Your task to perform on an android device: Search for Italian restaurants on Maps Image 0: 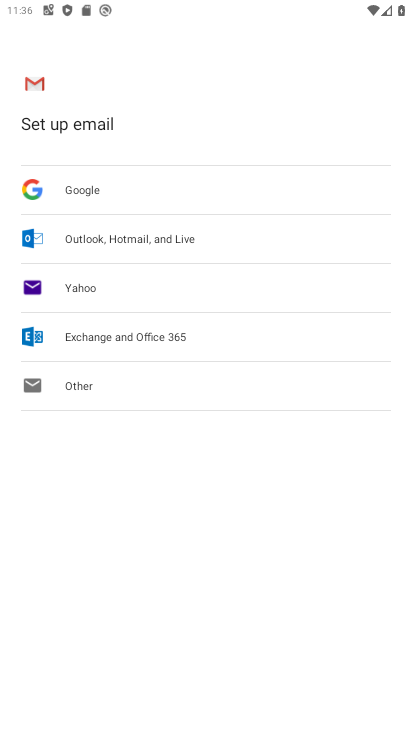
Step 0: press home button
Your task to perform on an android device: Search for Italian restaurants on Maps Image 1: 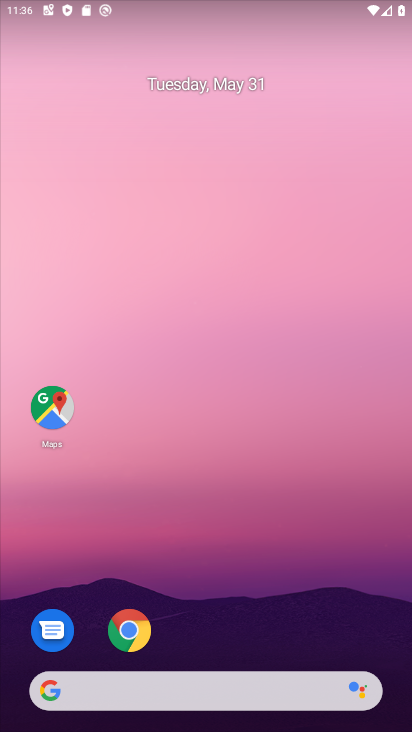
Step 1: drag from (307, 588) to (363, 154)
Your task to perform on an android device: Search for Italian restaurants on Maps Image 2: 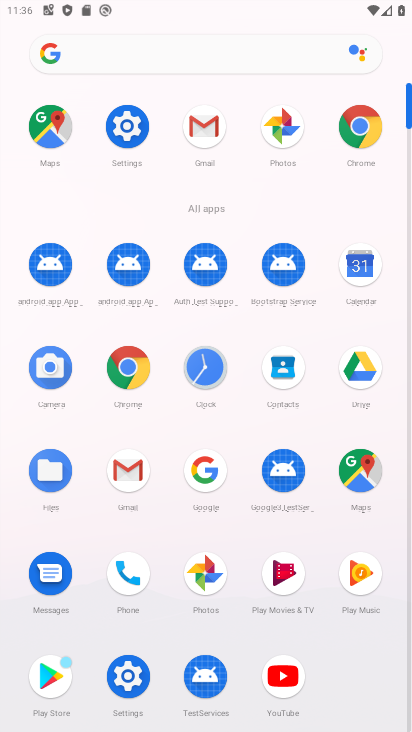
Step 2: click (361, 486)
Your task to perform on an android device: Search for Italian restaurants on Maps Image 3: 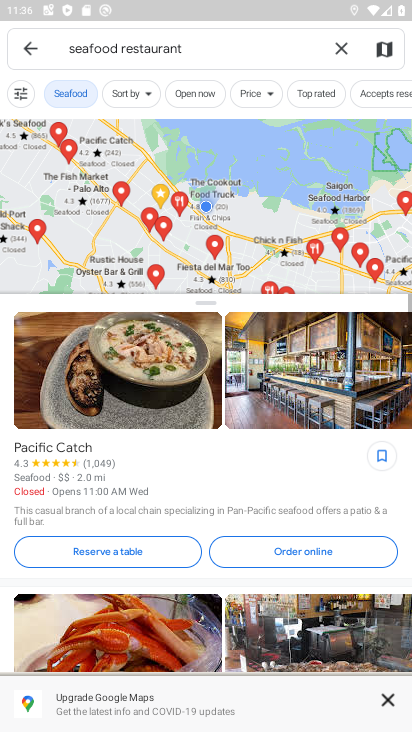
Step 3: click (341, 44)
Your task to perform on an android device: Search for Italian restaurants on Maps Image 4: 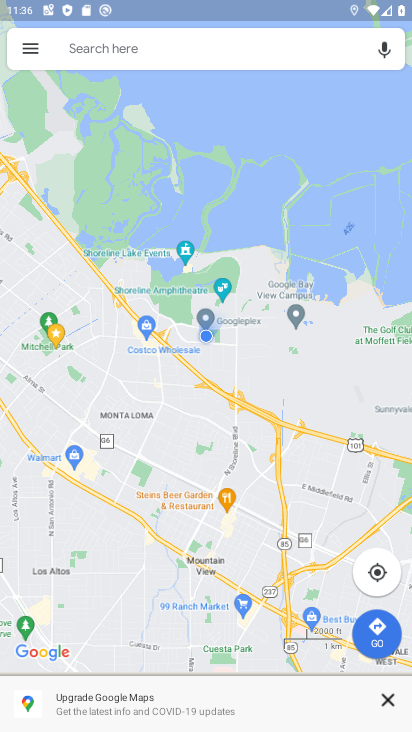
Step 4: click (216, 47)
Your task to perform on an android device: Search for Italian restaurants on Maps Image 5: 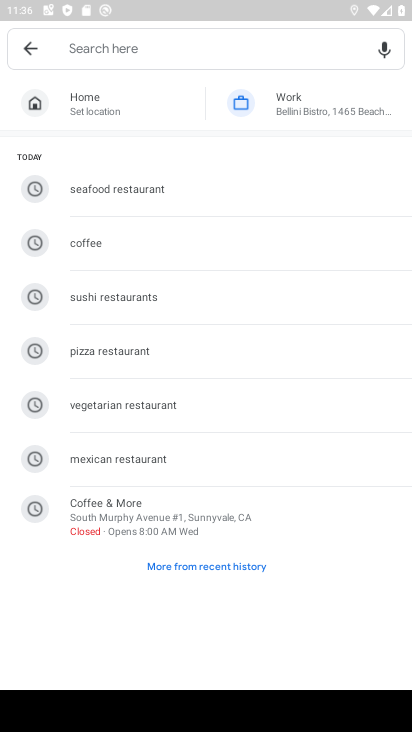
Step 5: type "Italian restaurants"
Your task to perform on an android device: Search for Italian restaurants on Maps Image 6: 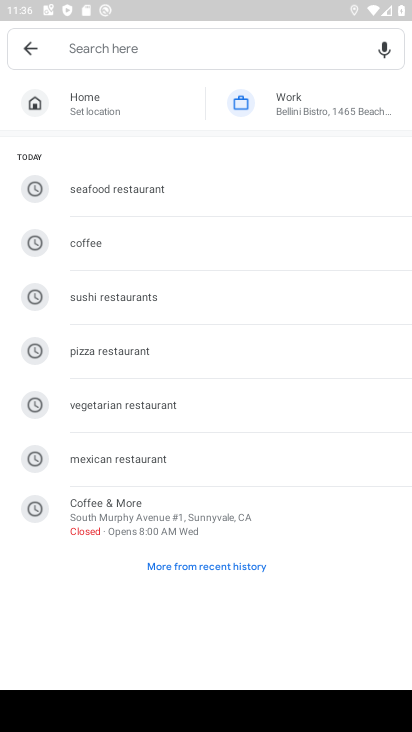
Step 6: click (240, 47)
Your task to perform on an android device: Search for Italian restaurants on Maps Image 7: 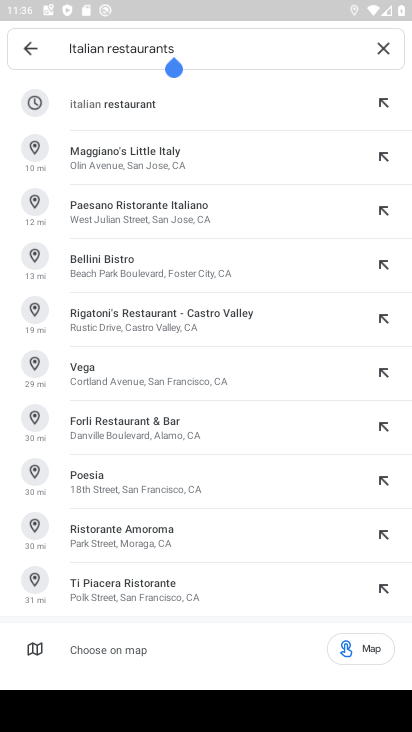
Step 7: click (104, 106)
Your task to perform on an android device: Search for Italian restaurants on Maps Image 8: 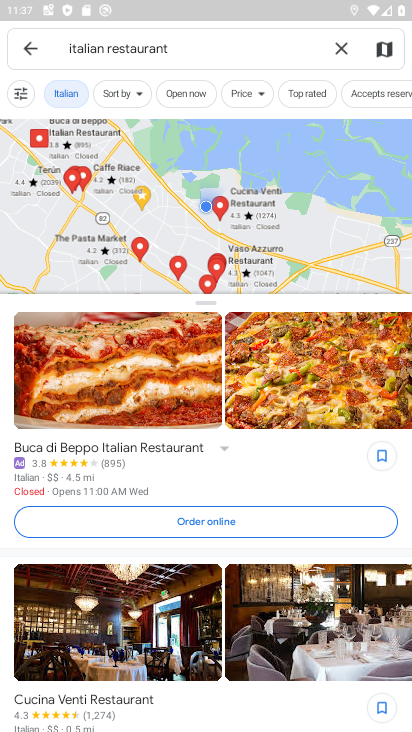
Step 8: task complete